Your task to perform on an android device: empty trash in google photos Image 0: 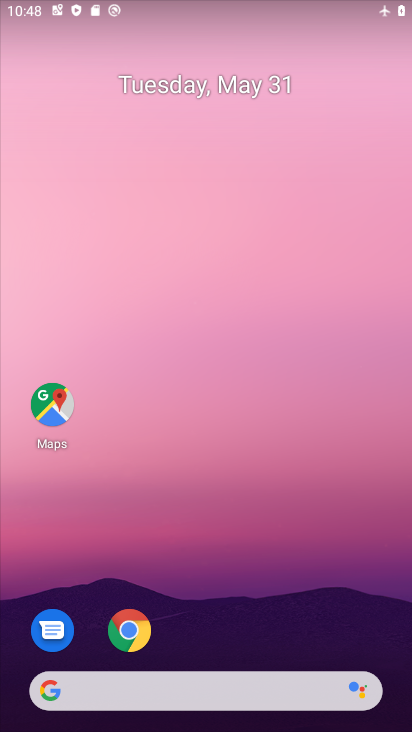
Step 0: drag from (247, 635) to (233, 227)
Your task to perform on an android device: empty trash in google photos Image 1: 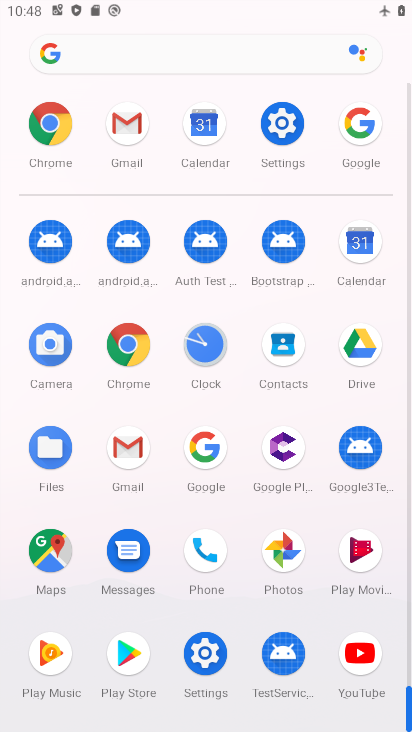
Step 1: drag from (224, 556) to (222, 313)
Your task to perform on an android device: empty trash in google photos Image 2: 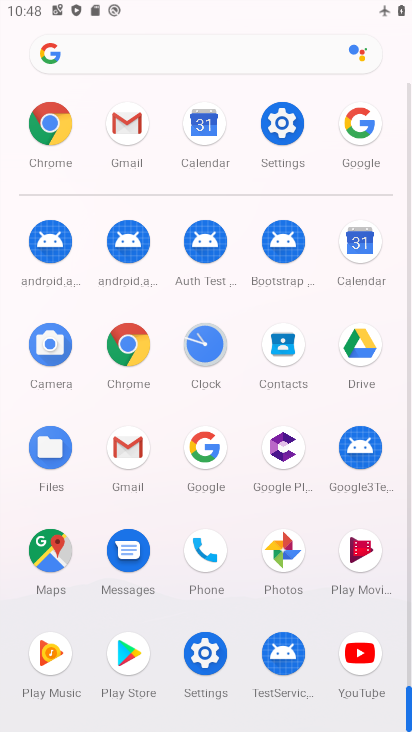
Step 2: click (292, 571)
Your task to perform on an android device: empty trash in google photos Image 3: 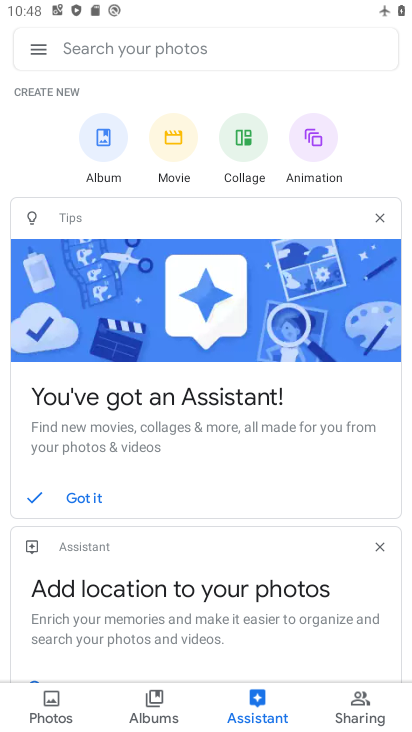
Step 3: click (39, 58)
Your task to perform on an android device: empty trash in google photos Image 4: 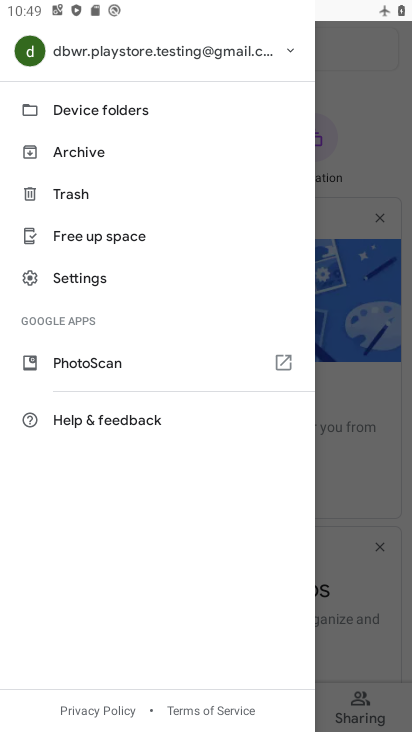
Step 4: click (118, 195)
Your task to perform on an android device: empty trash in google photos Image 5: 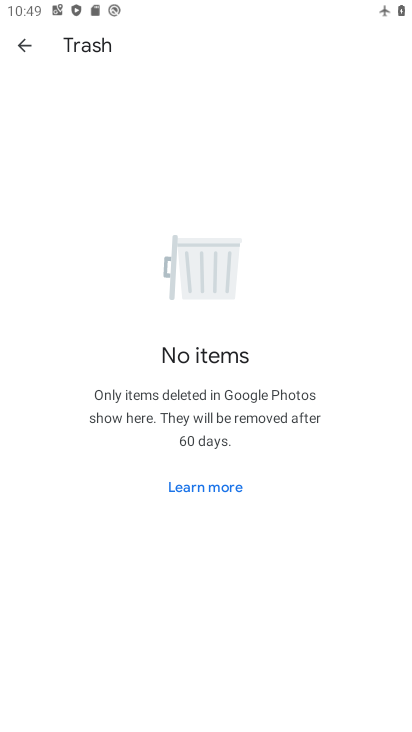
Step 5: task complete